Your task to perform on an android device: clear all cookies in the chrome app Image 0: 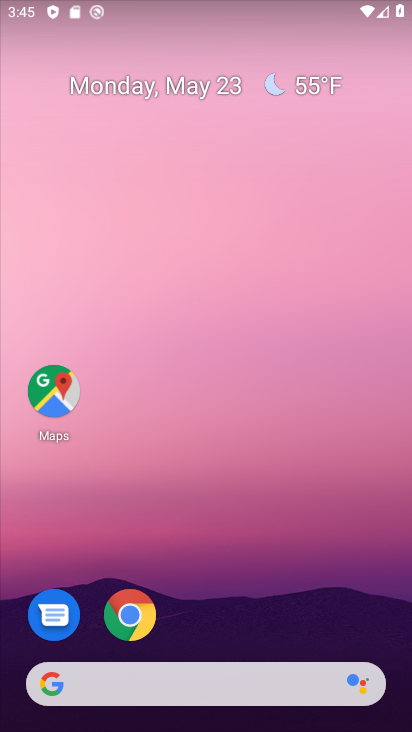
Step 0: drag from (364, 651) to (361, 101)
Your task to perform on an android device: clear all cookies in the chrome app Image 1: 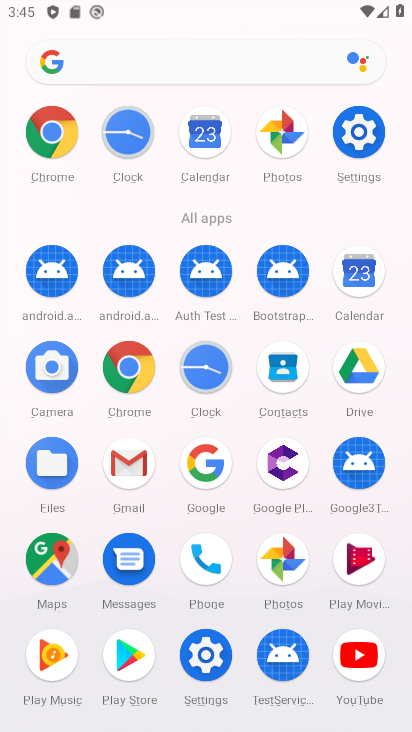
Step 1: click (120, 373)
Your task to perform on an android device: clear all cookies in the chrome app Image 2: 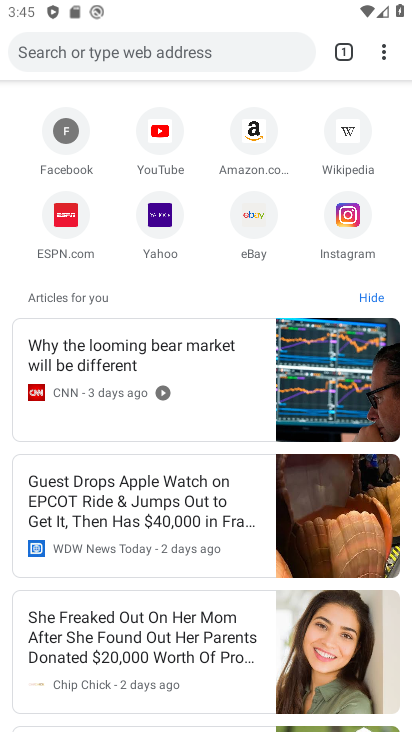
Step 2: click (382, 62)
Your task to perform on an android device: clear all cookies in the chrome app Image 3: 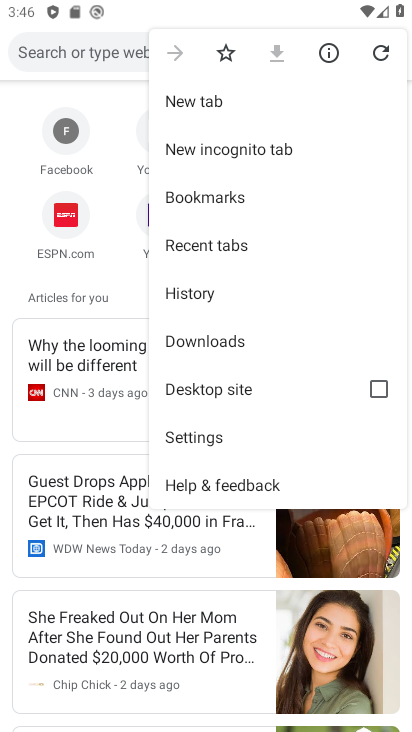
Step 3: click (216, 439)
Your task to perform on an android device: clear all cookies in the chrome app Image 4: 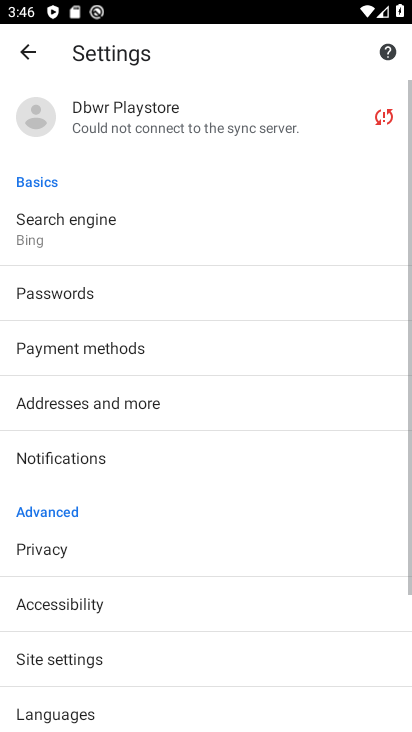
Step 4: drag from (252, 611) to (256, 426)
Your task to perform on an android device: clear all cookies in the chrome app Image 5: 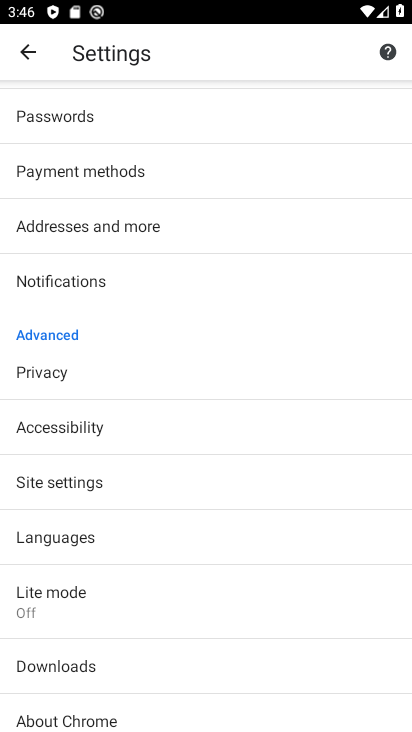
Step 5: drag from (274, 638) to (254, 428)
Your task to perform on an android device: clear all cookies in the chrome app Image 6: 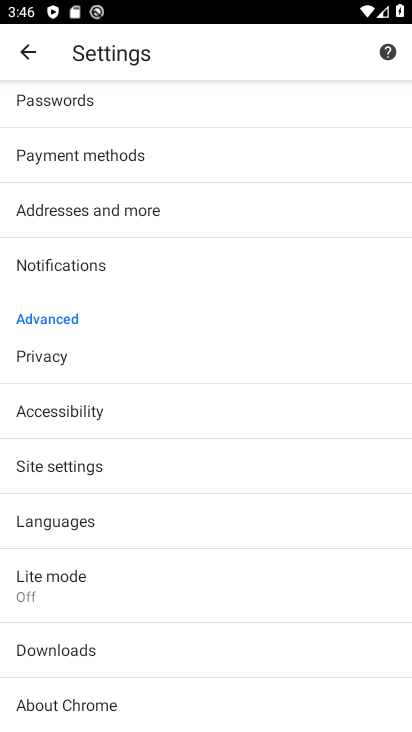
Step 6: drag from (268, 358) to (245, 523)
Your task to perform on an android device: clear all cookies in the chrome app Image 7: 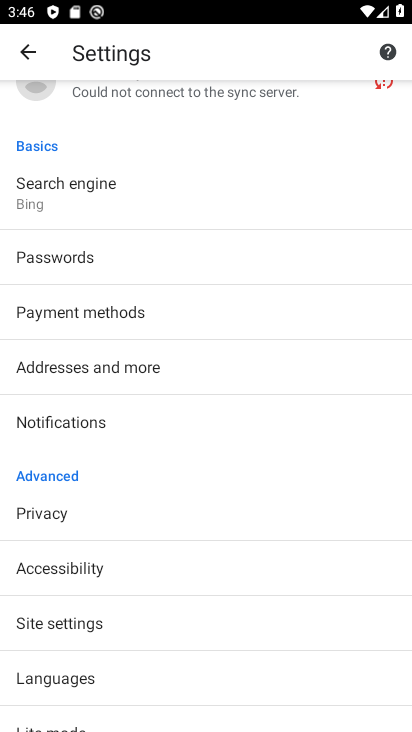
Step 7: drag from (267, 275) to (248, 502)
Your task to perform on an android device: clear all cookies in the chrome app Image 8: 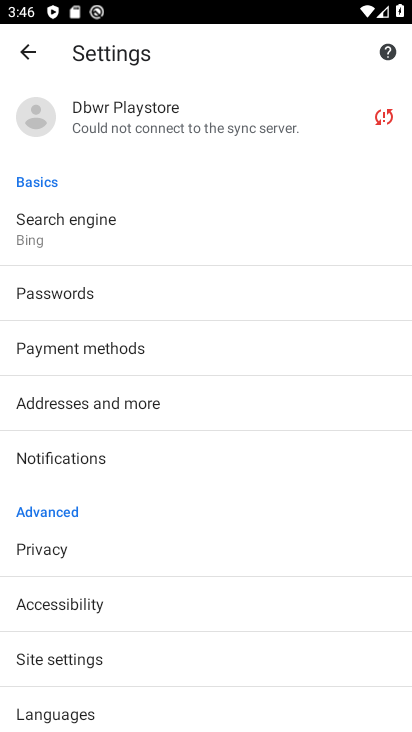
Step 8: drag from (253, 588) to (255, 451)
Your task to perform on an android device: clear all cookies in the chrome app Image 9: 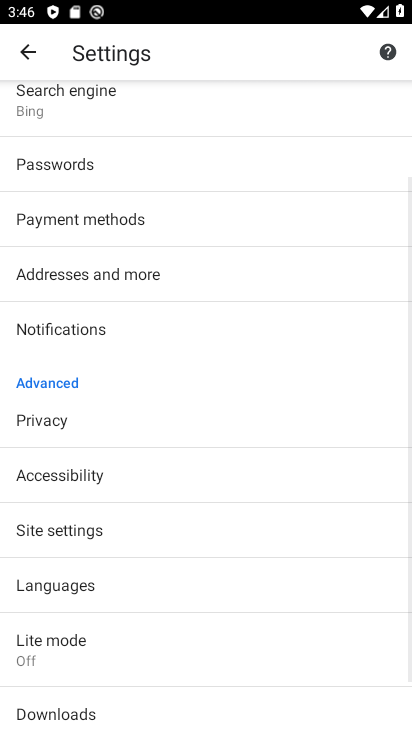
Step 9: drag from (253, 614) to (256, 450)
Your task to perform on an android device: clear all cookies in the chrome app Image 10: 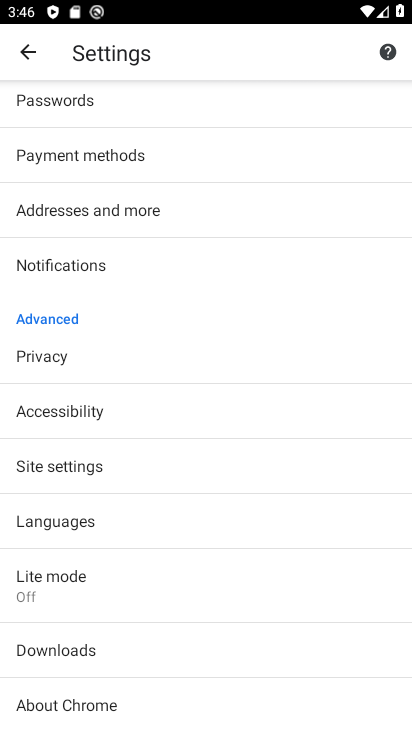
Step 10: click (130, 362)
Your task to perform on an android device: clear all cookies in the chrome app Image 11: 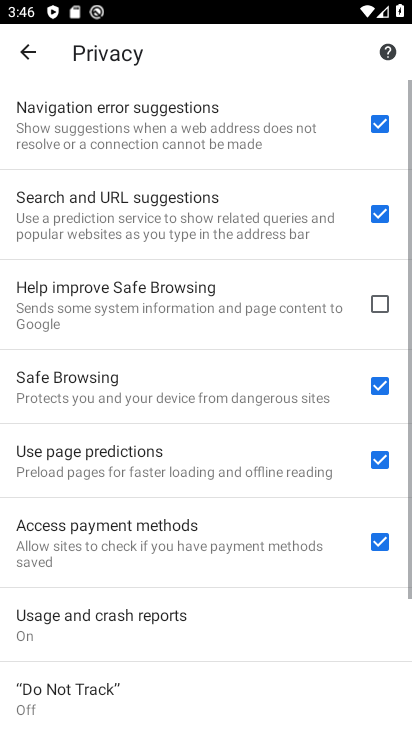
Step 11: drag from (289, 601) to (291, 447)
Your task to perform on an android device: clear all cookies in the chrome app Image 12: 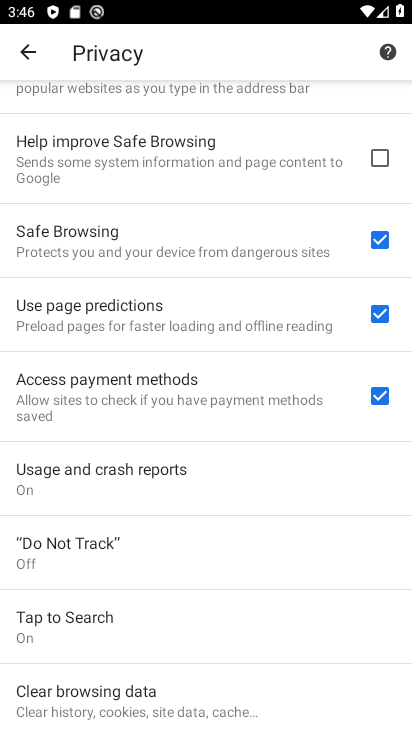
Step 12: drag from (277, 646) to (280, 510)
Your task to perform on an android device: clear all cookies in the chrome app Image 13: 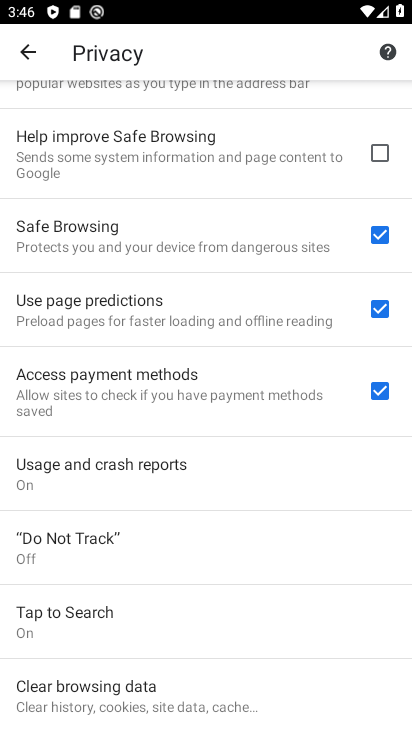
Step 13: drag from (281, 340) to (275, 454)
Your task to perform on an android device: clear all cookies in the chrome app Image 14: 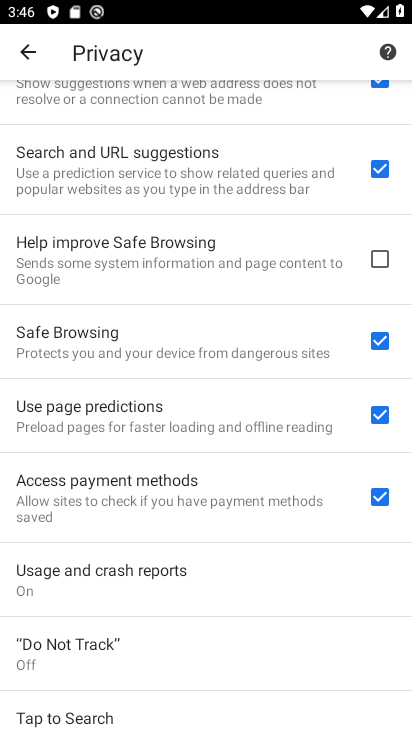
Step 14: drag from (274, 296) to (273, 436)
Your task to perform on an android device: clear all cookies in the chrome app Image 15: 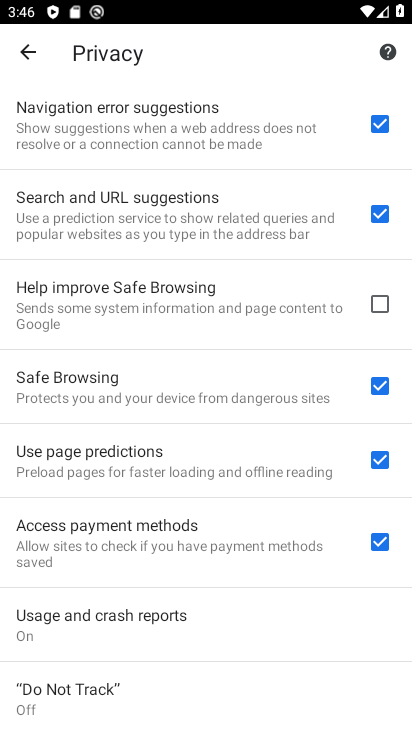
Step 15: drag from (281, 175) to (247, 486)
Your task to perform on an android device: clear all cookies in the chrome app Image 16: 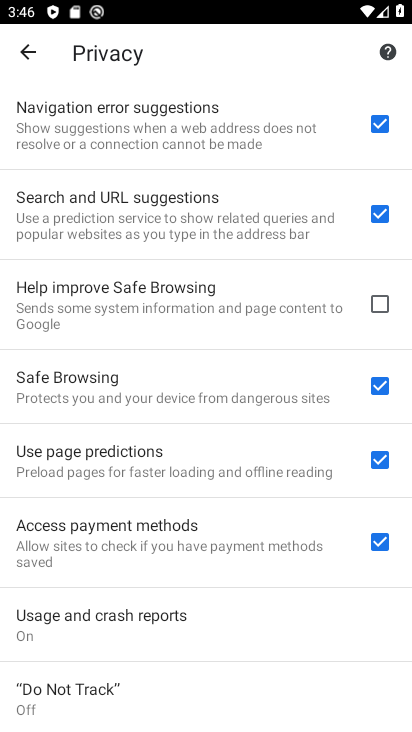
Step 16: drag from (247, 639) to (258, 428)
Your task to perform on an android device: clear all cookies in the chrome app Image 17: 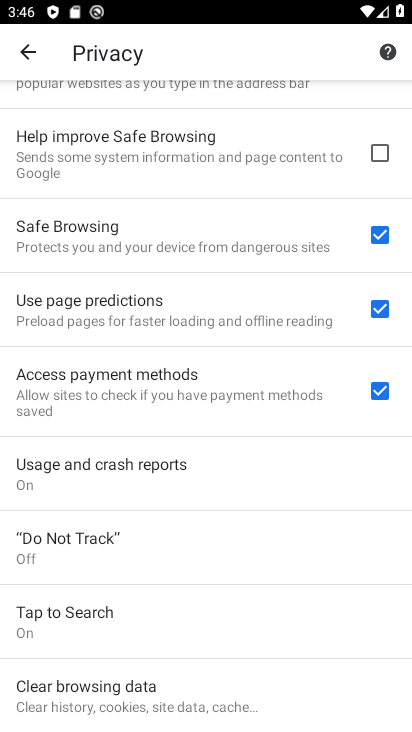
Step 17: drag from (257, 577) to (260, 433)
Your task to perform on an android device: clear all cookies in the chrome app Image 18: 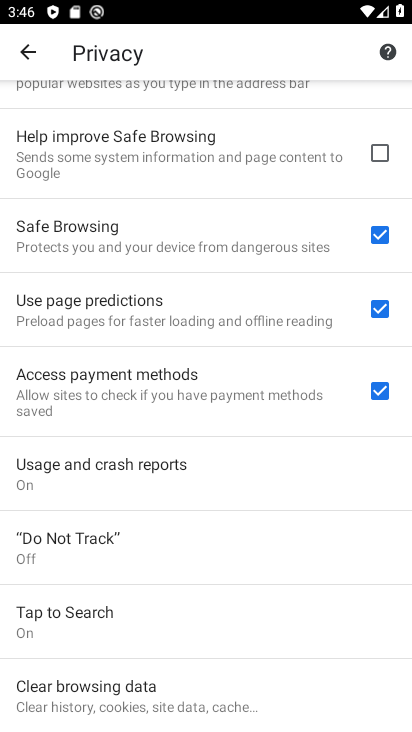
Step 18: click (153, 704)
Your task to perform on an android device: clear all cookies in the chrome app Image 19: 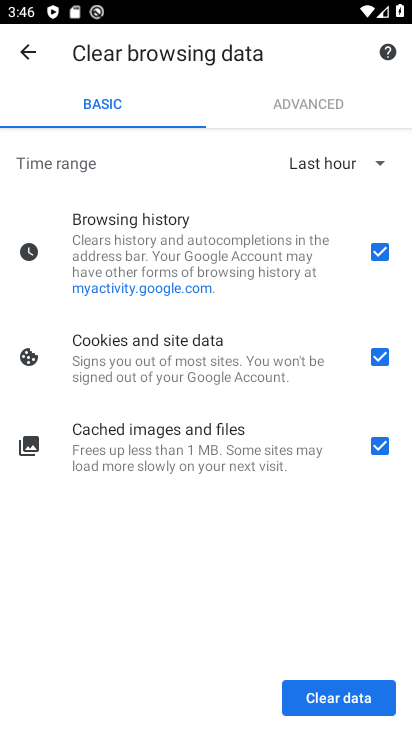
Step 19: click (338, 697)
Your task to perform on an android device: clear all cookies in the chrome app Image 20: 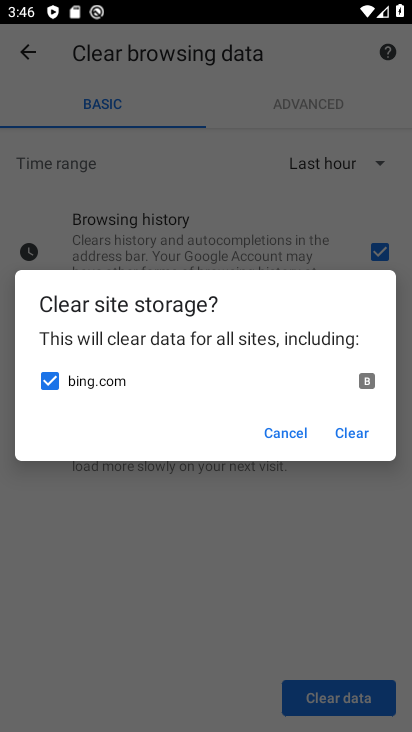
Step 20: click (357, 441)
Your task to perform on an android device: clear all cookies in the chrome app Image 21: 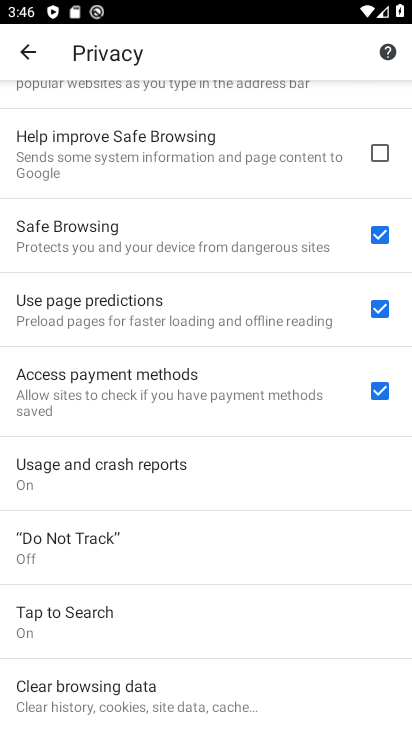
Step 21: task complete